Your task to perform on an android device: What is the recent news? Image 0: 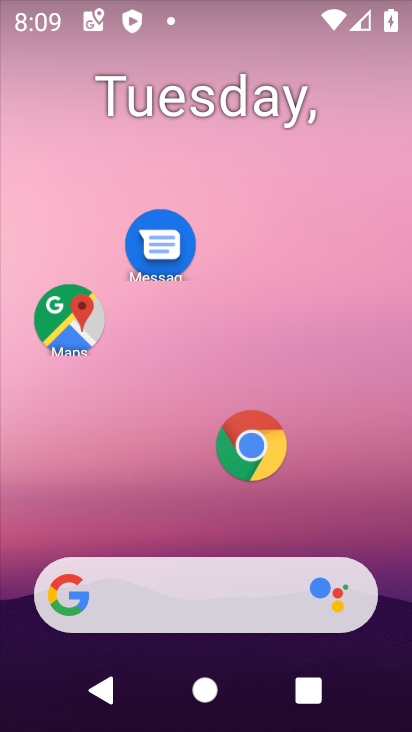
Step 0: drag from (142, 557) to (197, 223)
Your task to perform on an android device: What is the recent news? Image 1: 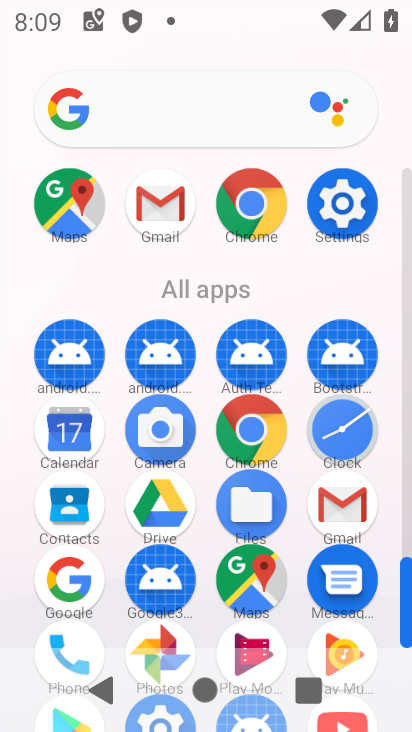
Step 1: click (77, 598)
Your task to perform on an android device: What is the recent news? Image 2: 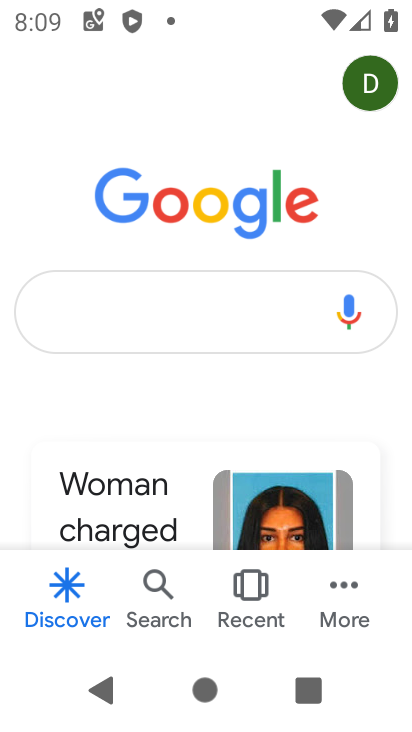
Step 2: click (190, 304)
Your task to perform on an android device: What is the recent news? Image 3: 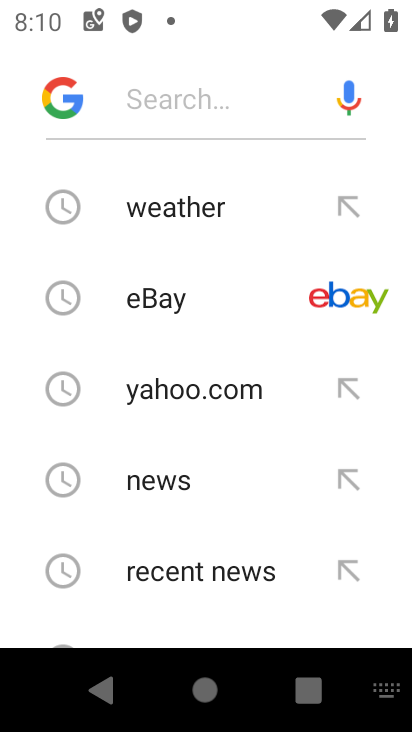
Step 3: click (169, 580)
Your task to perform on an android device: What is the recent news? Image 4: 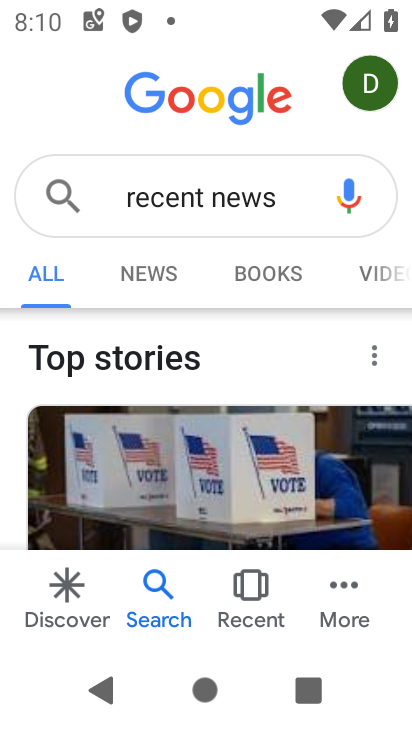
Step 4: task complete